Your task to perform on an android device: Go to network settings Image 0: 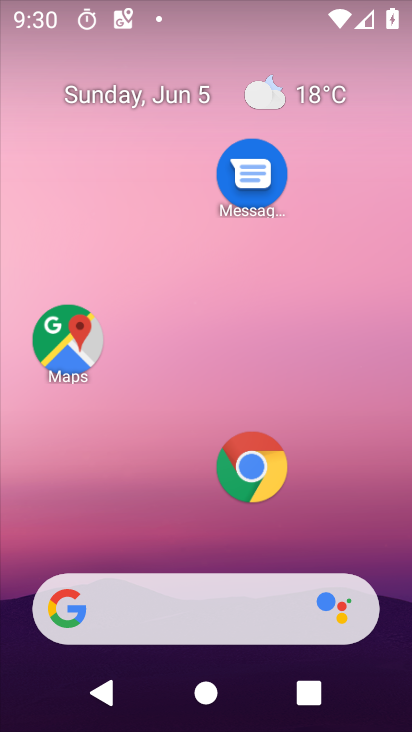
Step 0: click (252, 160)
Your task to perform on an android device: Go to network settings Image 1: 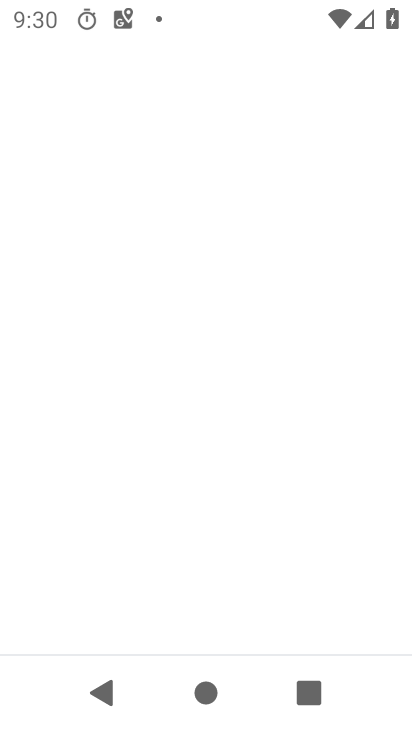
Step 1: press home button
Your task to perform on an android device: Go to network settings Image 2: 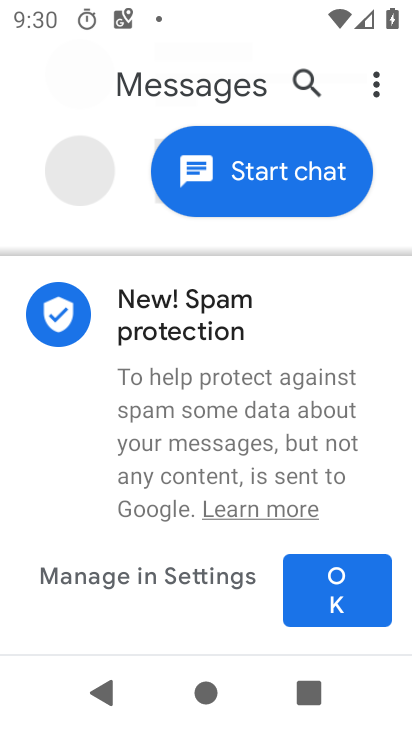
Step 2: drag from (228, 310) to (288, 11)
Your task to perform on an android device: Go to network settings Image 3: 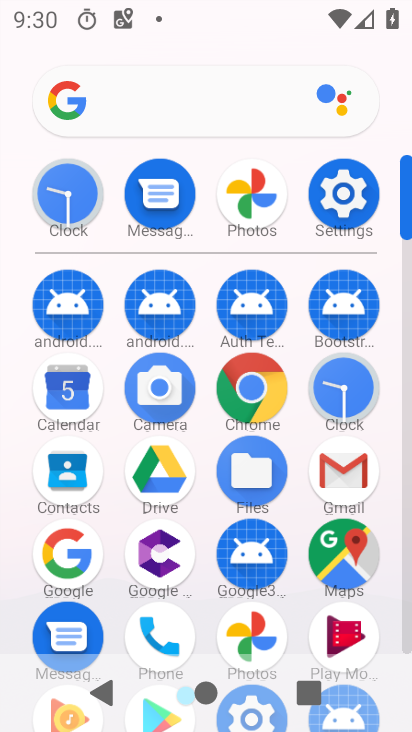
Step 3: click (346, 192)
Your task to perform on an android device: Go to network settings Image 4: 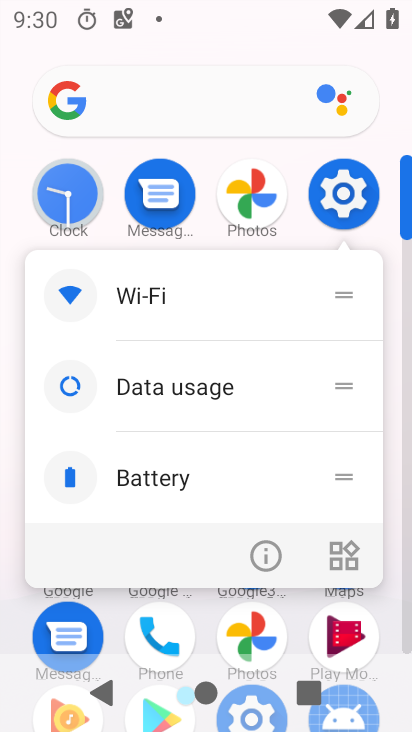
Step 4: click (260, 554)
Your task to perform on an android device: Go to network settings Image 5: 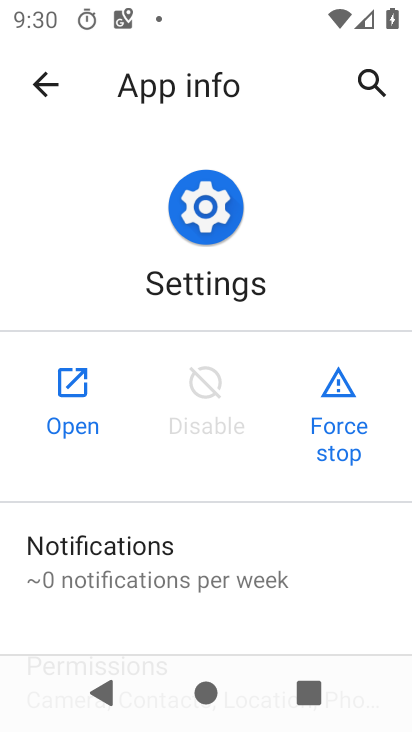
Step 5: click (70, 390)
Your task to perform on an android device: Go to network settings Image 6: 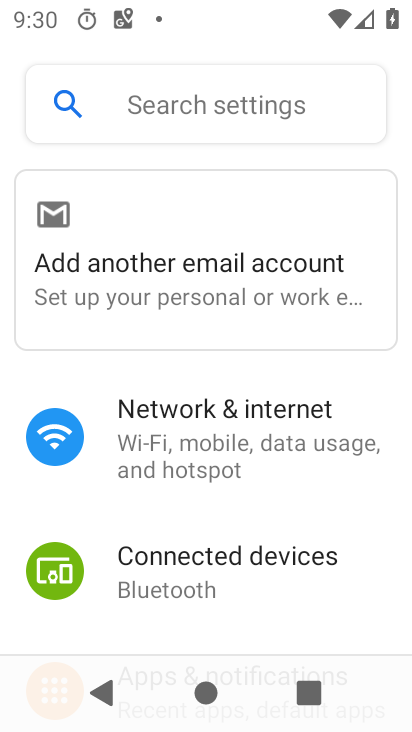
Step 6: drag from (237, 608) to (382, 158)
Your task to perform on an android device: Go to network settings Image 7: 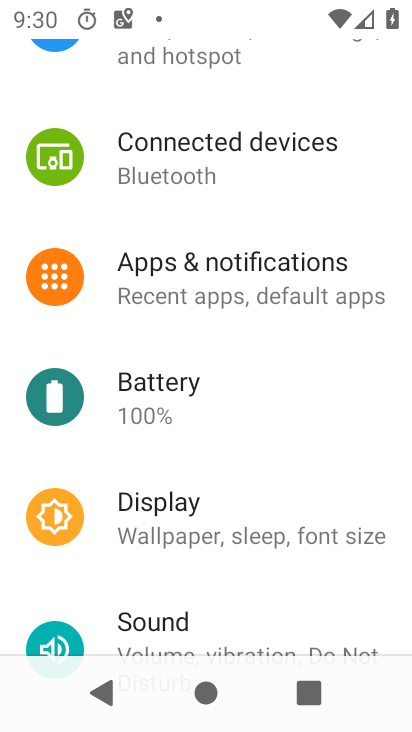
Step 7: drag from (236, 279) to (276, 728)
Your task to perform on an android device: Go to network settings Image 8: 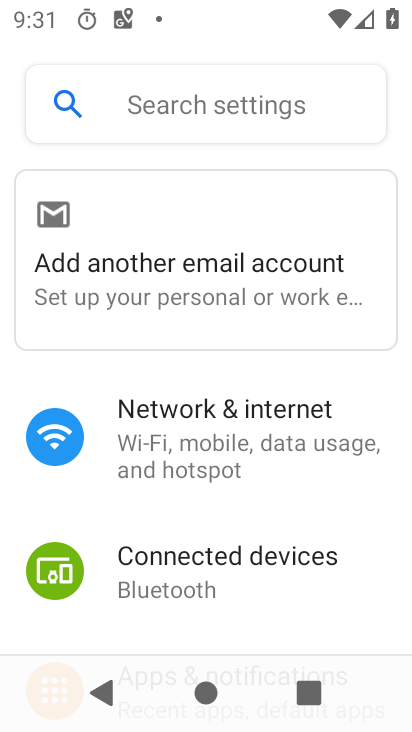
Step 8: click (203, 427)
Your task to perform on an android device: Go to network settings Image 9: 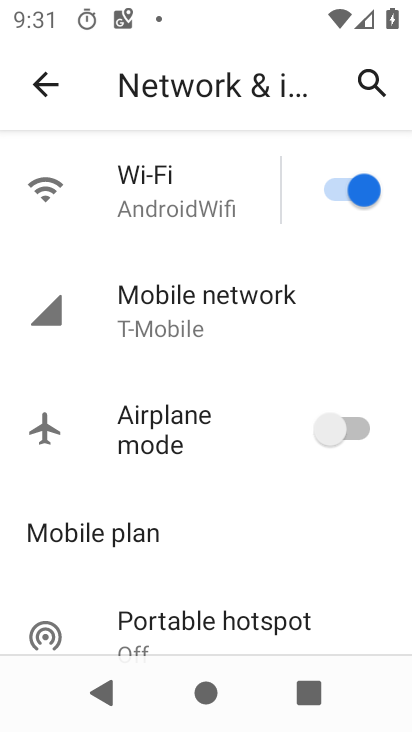
Step 9: task complete